Your task to perform on an android device: Go to wifi settings Image 0: 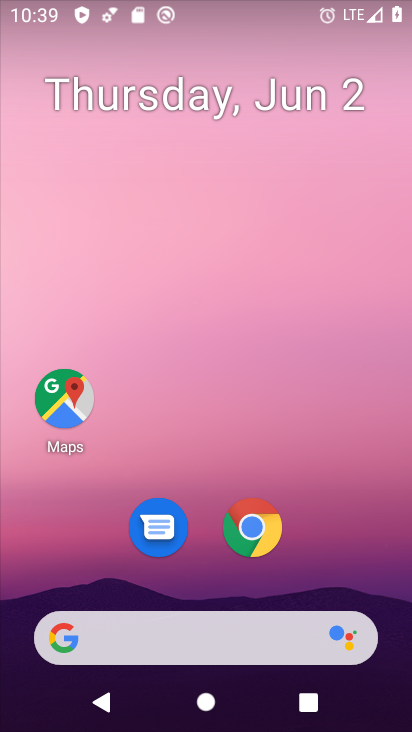
Step 0: drag from (145, 646) to (108, 173)
Your task to perform on an android device: Go to wifi settings Image 1: 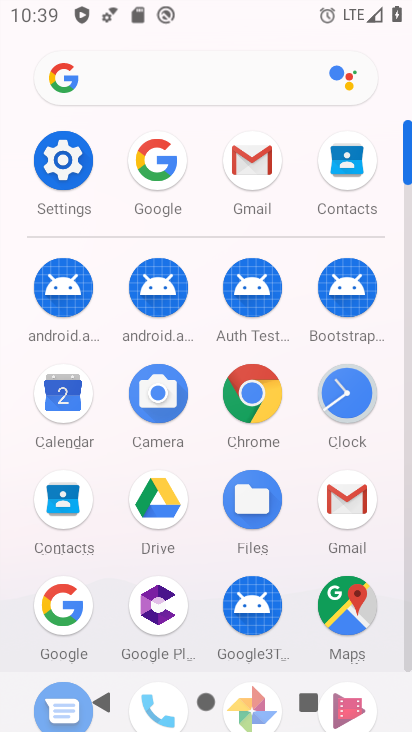
Step 1: click (60, 168)
Your task to perform on an android device: Go to wifi settings Image 2: 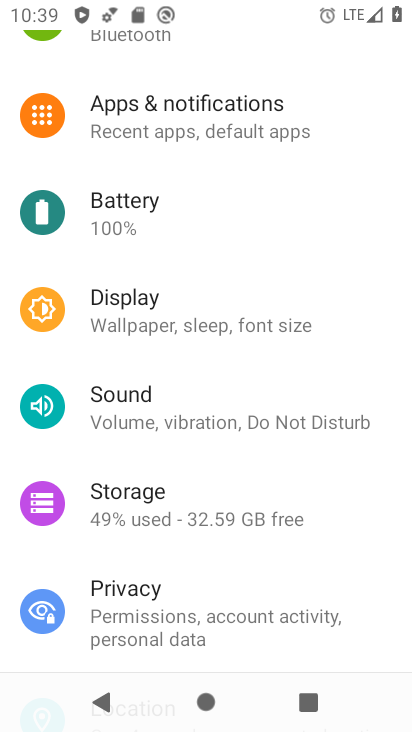
Step 2: drag from (151, 128) to (194, 654)
Your task to perform on an android device: Go to wifi settings Image 3: 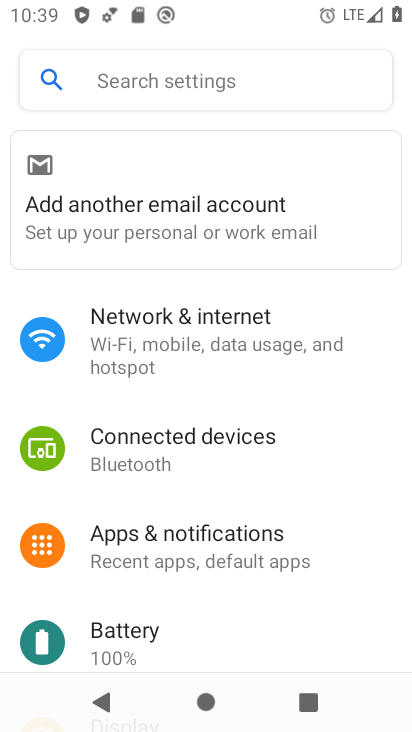
Step 3: click (163, 354)
Your task to perform on an android device: Go to wifi settings Image 4: 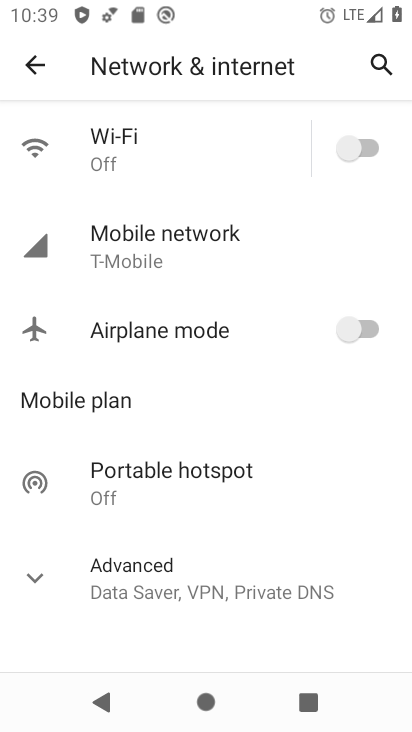
Step 4: click (119, 164)
Your task to perform on an android device: Go to wifi settings Image 5: 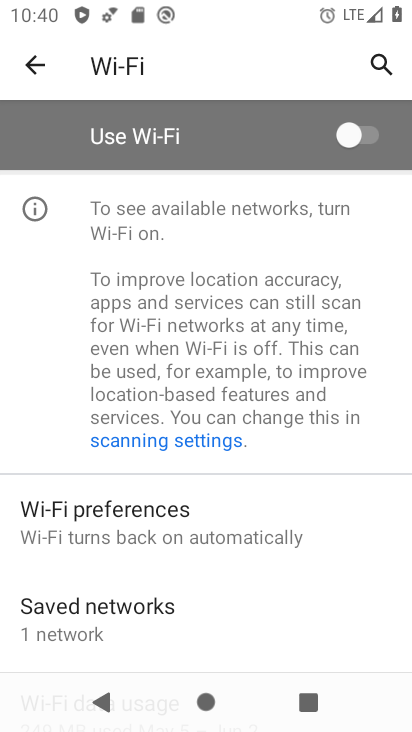
Step 5: task complete